Your task to perform on an android device: turn off airplane mode Image 0: 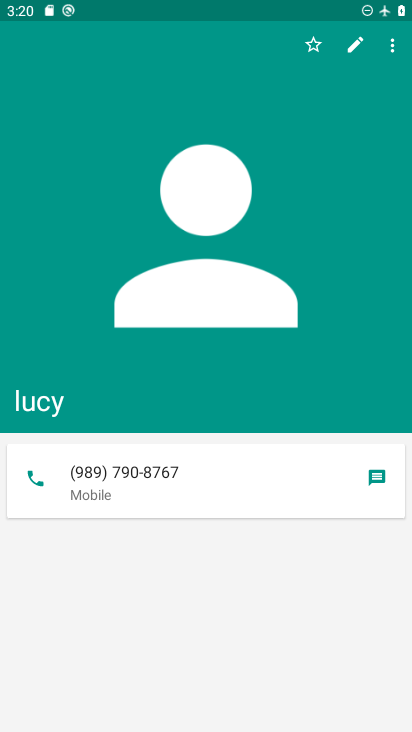
Step 0: press home button
Your task to perform on an android device: turn off airplane mode Image 1: 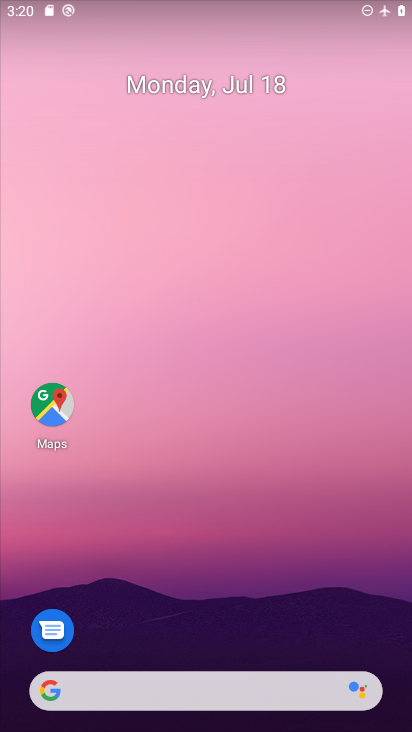
Step 1: drag from (322, 675) to (245, 118)
Your task to perform on an android device: turn off airplane mode Image 2: 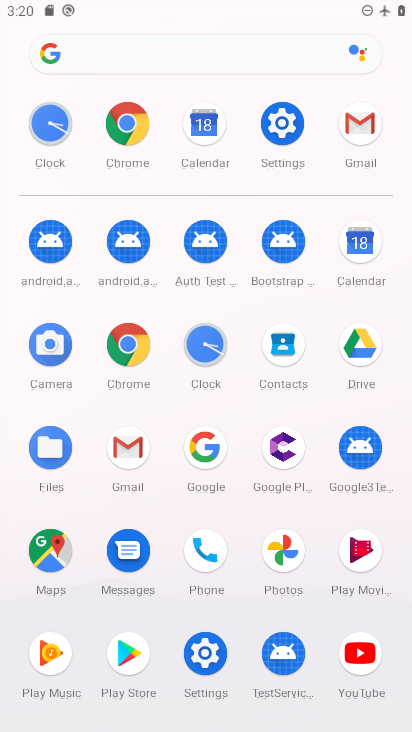
Step 2: click (276, 132)
Your task to perform on an android device: turn off airplane mode Image 3: 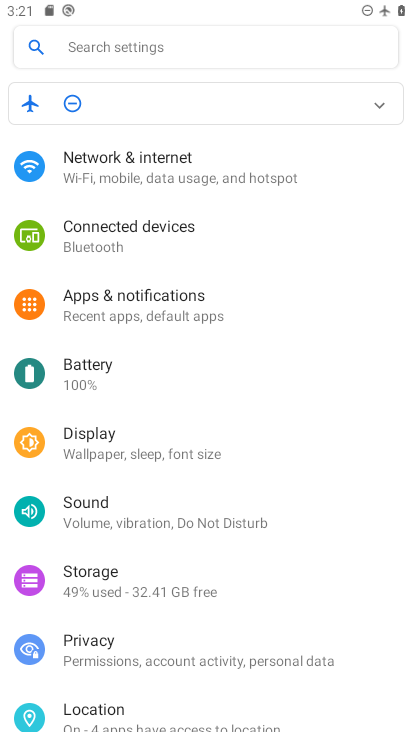
Step 3: click (212, 175)
Your task to perform on an android device: turn off airplane mode Image 4: 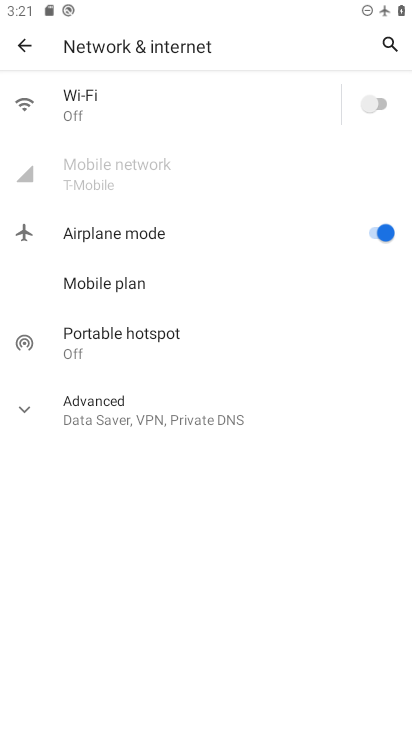
Step 4: click (385, 234)
Your task to perform on an android device: turn off airplane mode Image 5: 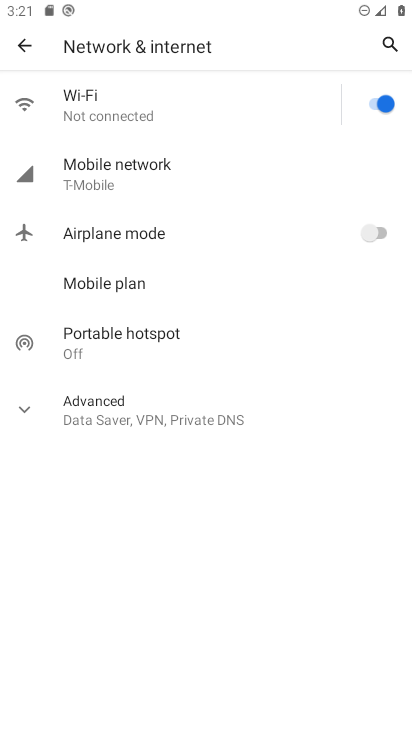
Step 5: task complete